Your task to perform on an android device: change the clock style Image 0: 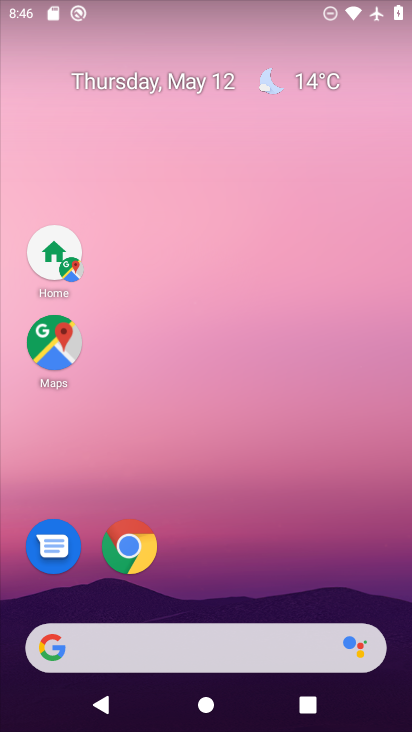
Step 0: drag from (194, 631) to (321, 283)
Your task to perform on an android device: change the clock style Image 1: 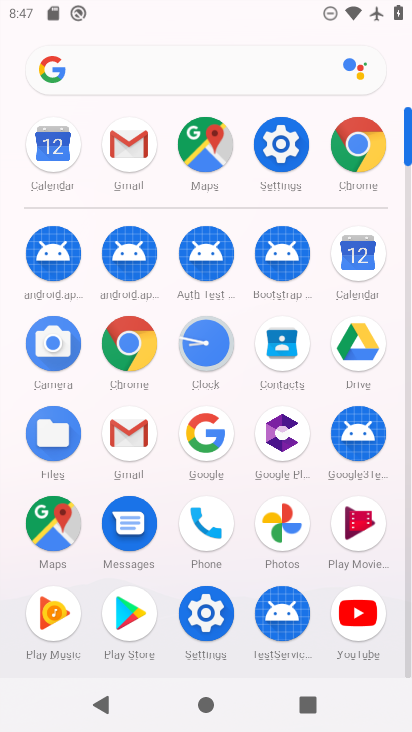
Step 1: click (203, 342)
Your task to perform on an android device: change the clock style Image 2: 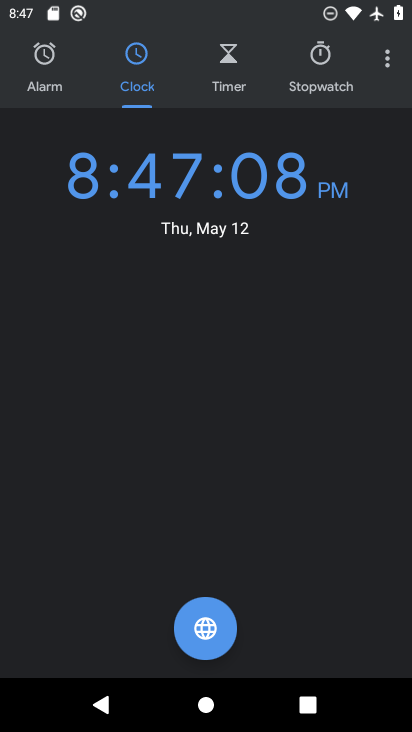
Step 2: click (391, 60)
Your task to perform on an android device: change the clock style Image 3: 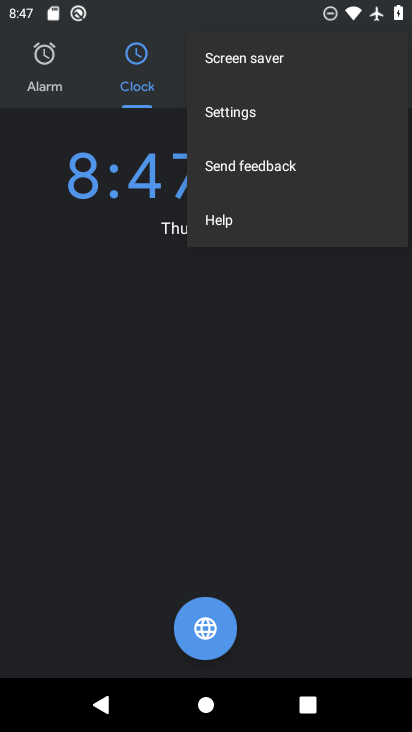
Step 3: click (241, 113)
Your task to perform on an android device: change the clock style Image 4: 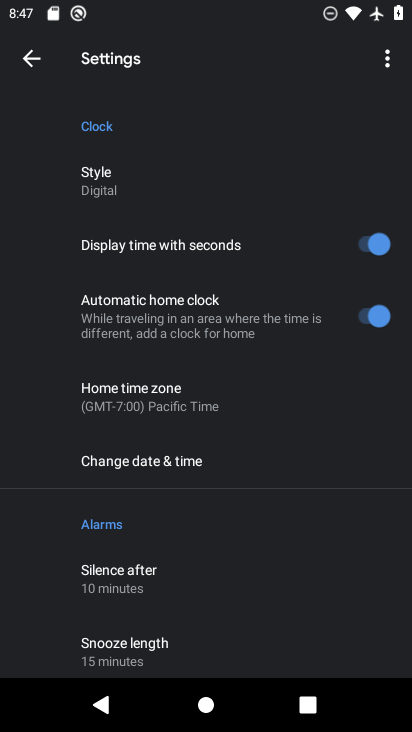
Step 4: click (110, 191)
Your task to perform on an android device: change the clock style Image 5: 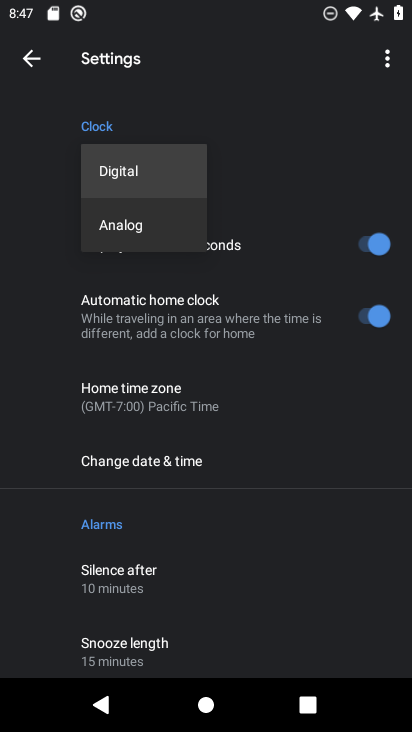
Step 5: click (113, 226)
Your task to perform on an android device: change the clock style Image 6: 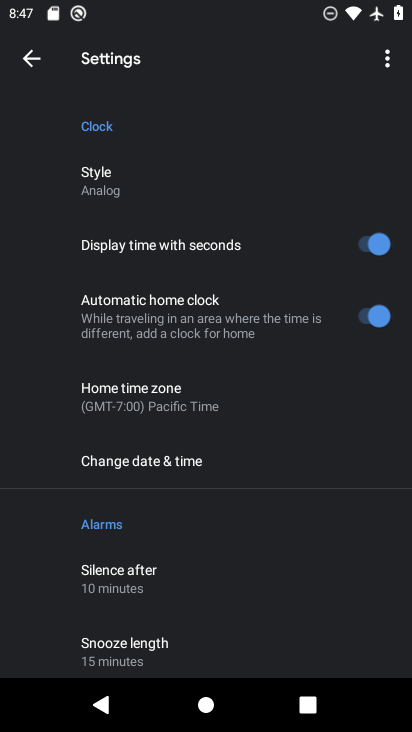
Step 6: task complete